Your task to perform on an android device: Go to Maps Image 0: 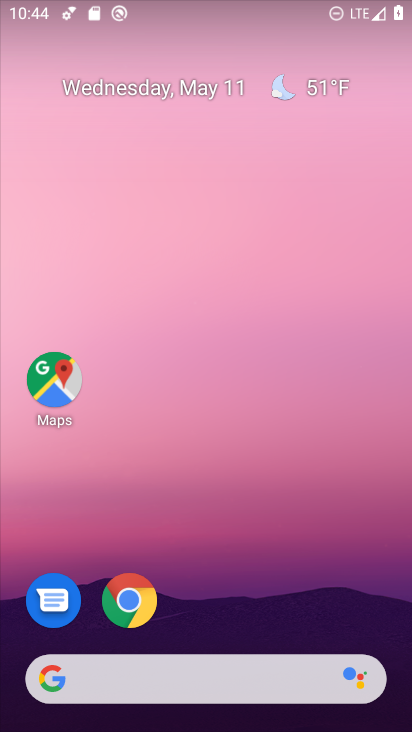
Step 0: click (35, 383)
Your task to perform on an android device: Go to Maps Image 1: 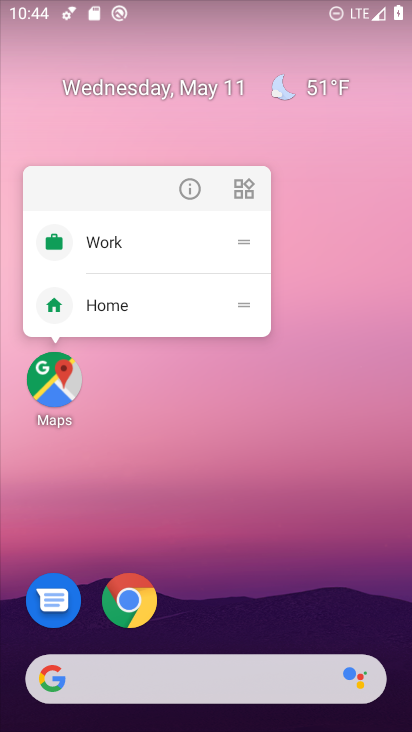
Step 1: click (41, 368)
Your task to perform on an android device: Go to Maps Image 2: 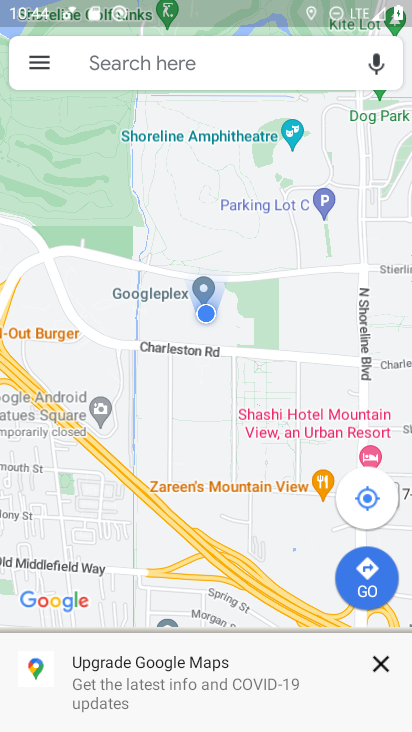
Step 2: task complete